Your task to perform on an android device: check storage Image 0: 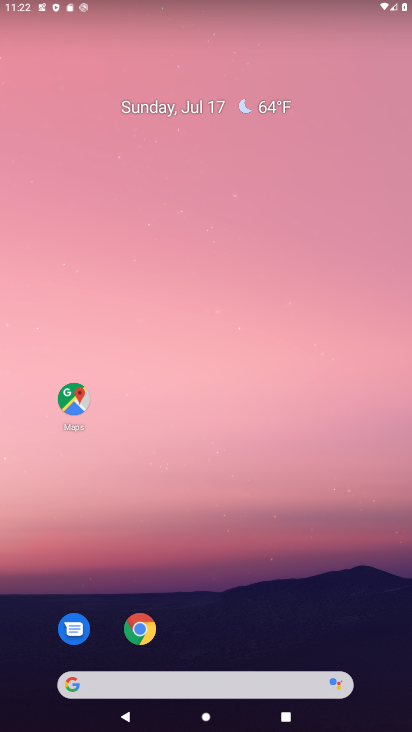
Step 0: drag from (262, 591) to (248, 195)
Your task to perform on an android device: check storage Image 1: 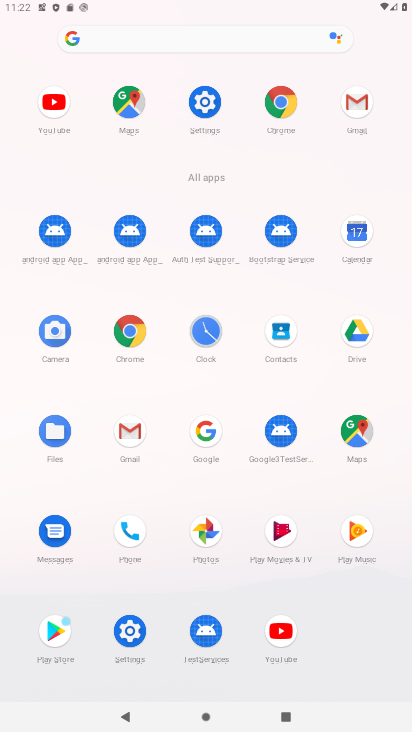
Step 1: click (208, 94)
Your task to perform on an android device: check storage Image 2: 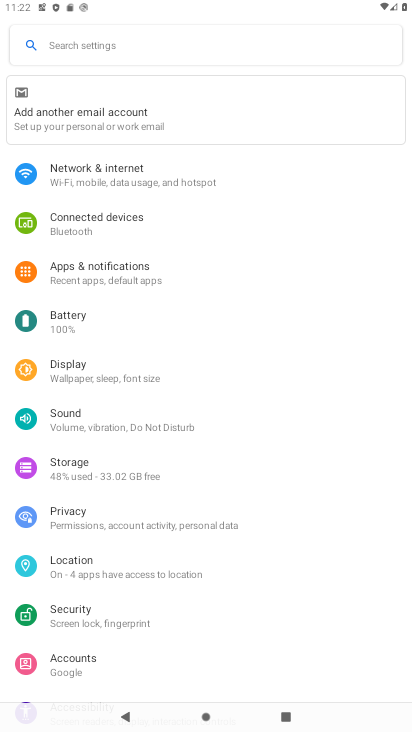
Step 2: click (95, 477)
Your task to perform on an android device: check storage Image 3: 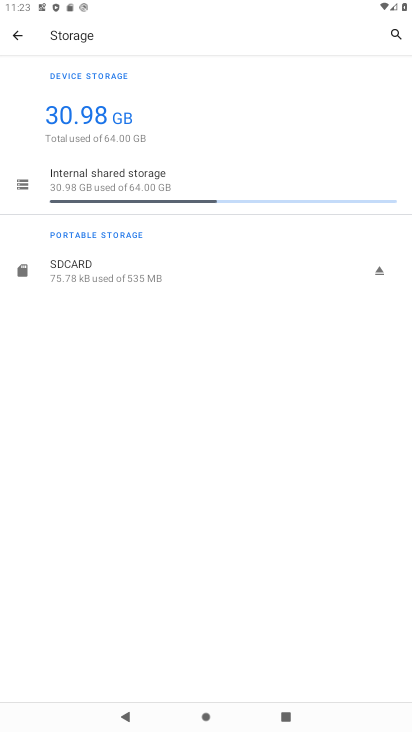
Step 3: task complete